Your task to perform on an android device: Go to Yahoo.com Image 0: 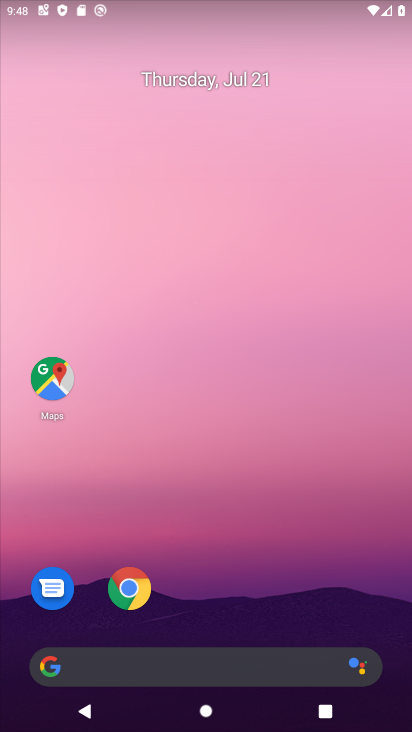
Step 0: click (128, 588)
Your task to perform on an android device: Go to Yahoo.com Image 1: 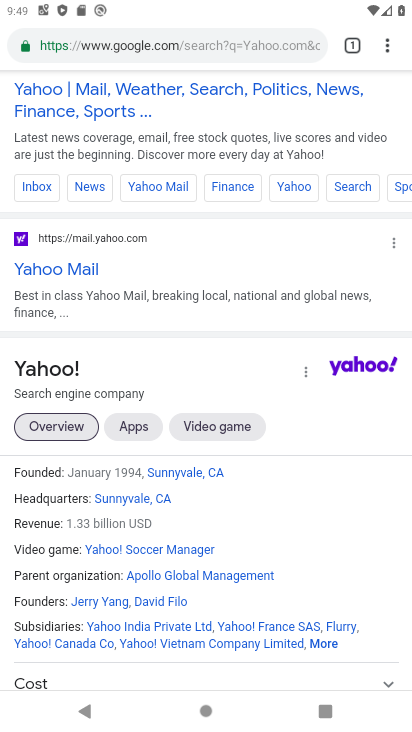
Step 1: task complete